Your task to perform on an android device: Go to wifi settings Image 0: 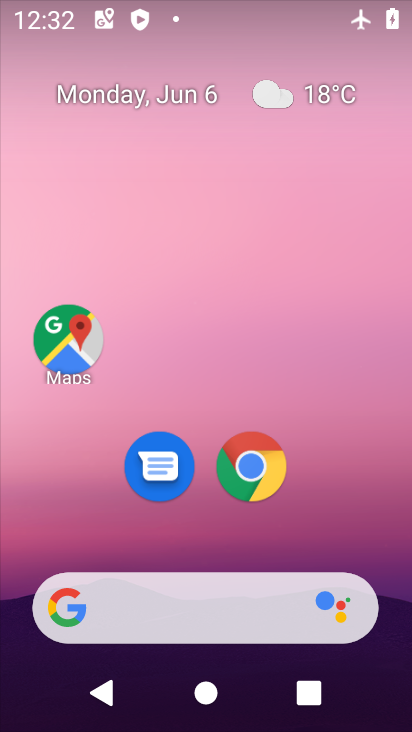
Step 0: drag from (380, 540) to (232, 32)
Your task to perform on an android device: Go to wifi settings Image 1: 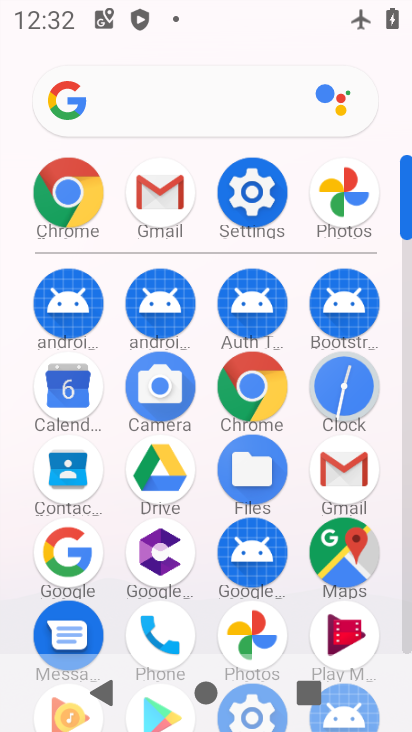
Step 1: drag from (18, 570) to (18, 247)
Your task to perform on an android device: Go to wifi settings Image 2: 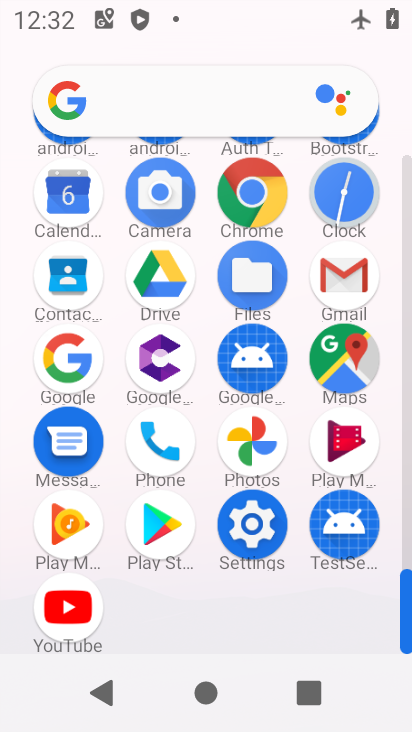
Step 2: click (254, 520)
Your task to perform on an android device: Go to wifi settings Image 3: 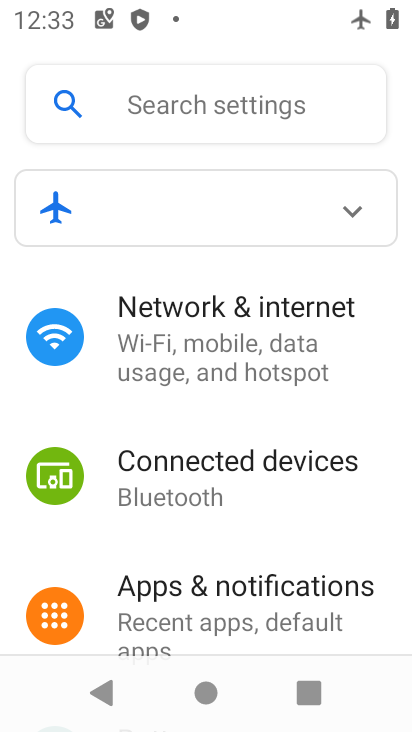
Step 3: click (223, 350)
Your task to perform on an android device: Go to wifi settings Image 4: 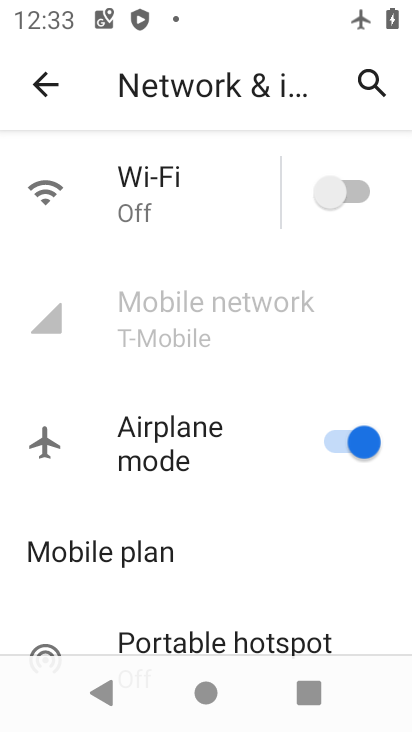
Step 4: click (176, 165)
Your task to perform on an android device: Go to wifi settings Image 5: 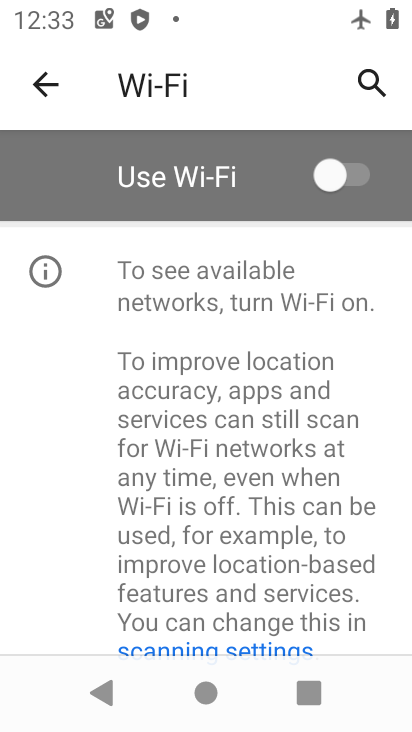
Step 5: task complete